Your task to perform on an android device: Open Youtube and go to the subscriptions tab Image 0: 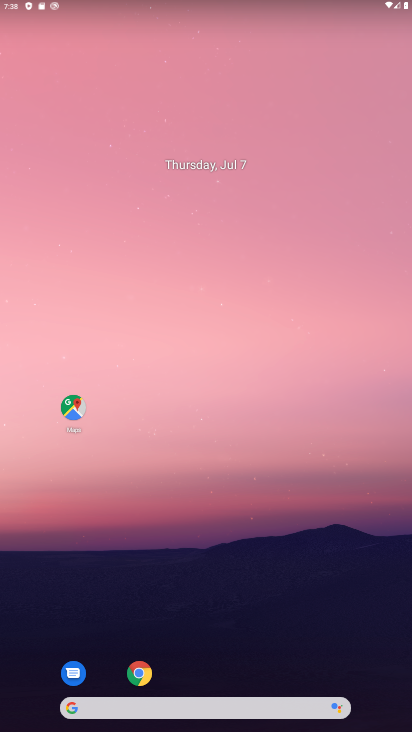
Step 0: drag from (252, 592) to (286, 102)
Your task to perform on an android device: Open Youtube and go to the subscriptions tab Image 1: 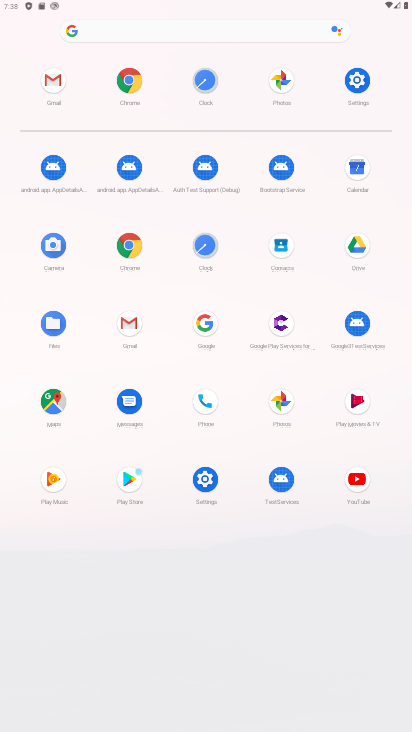
Step 1: click (356, 476)
Your task to perform on an android device: Open Youtube and go to the subscriptions tab Image 2: 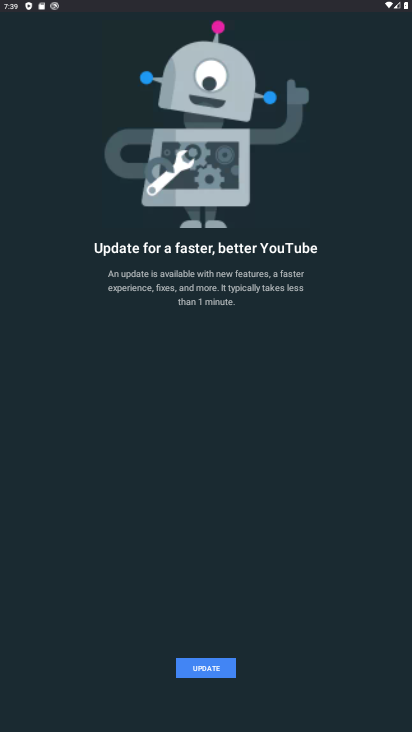
Step 2: click (200, 665)
Your task to perform on an android device: Open Youtube and go to the subscriptions tab Image 3: 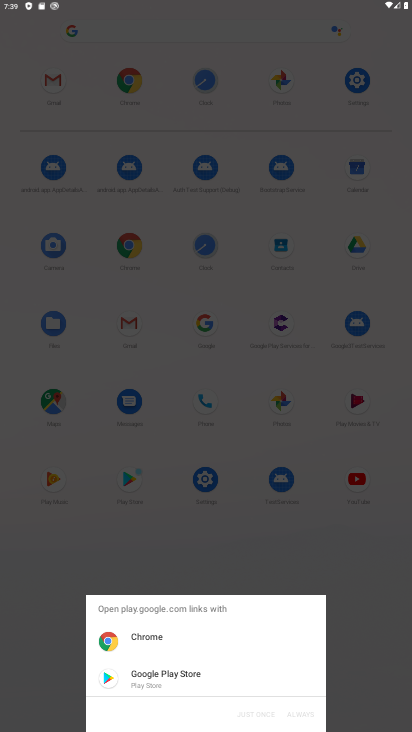
Step 3: click (182, 679)
Your task to perform on an android device: Open Youtube and go to the subscriptions tab Image 4: 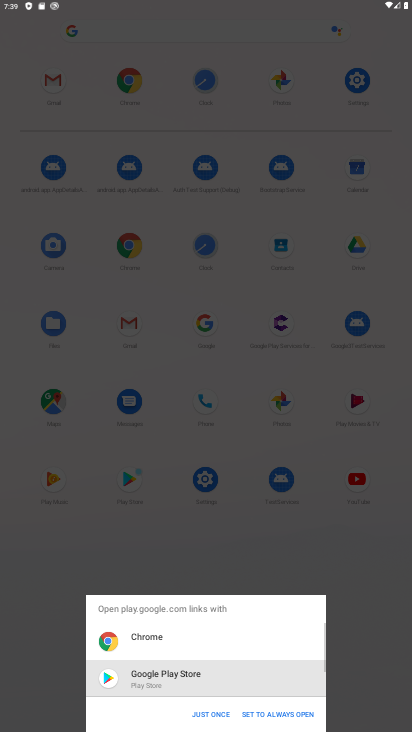
Step 4: click (199, 711)
Your task to perform on an android device: Open Youtube and go to the subscriptions tab Image 5: 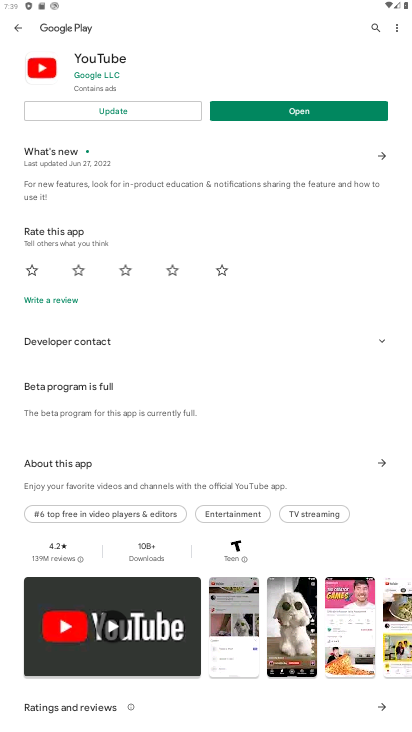
Step 5: click (143, 113)
Your task to perform on an android device: Open Youtube and go to the subscriptions tab Image 6: 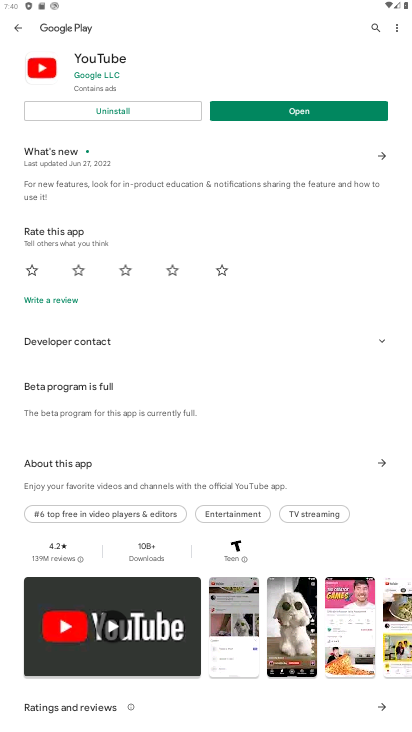
Step 6: click (291, 110)
Your task to perform on an android device: Open Youtube and go to the subscriptions tab Image 7: 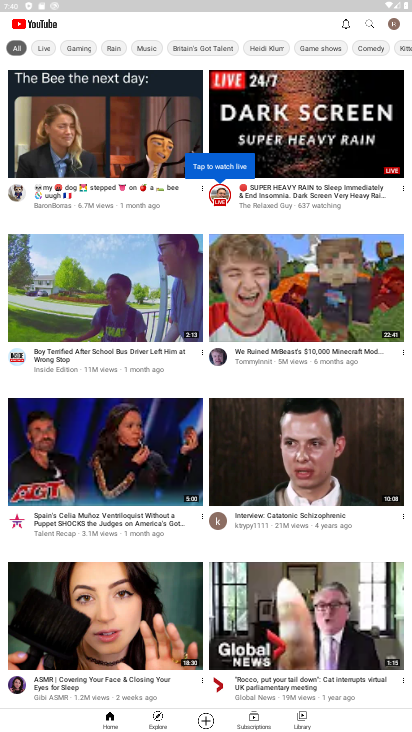
Step 7: click (257, 721)
Your task to perform on an android device: Open Youtube and go to the subscriptions tab Image 8: 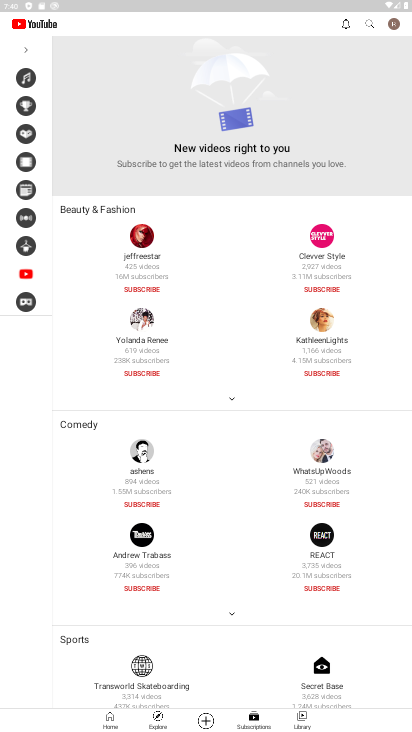
Step 8: task complete